Your task to perform on an android device: see sites visited before in the chrome app Image 0: 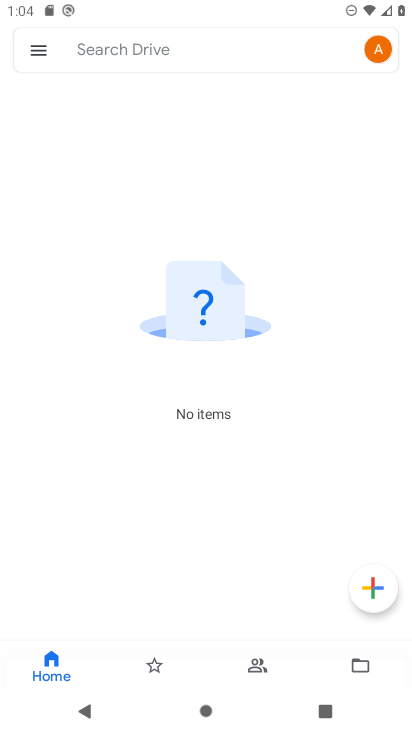
Step 0: press home button
Your task to perform on an android device: see sites visited before in the chrome app Image 1: 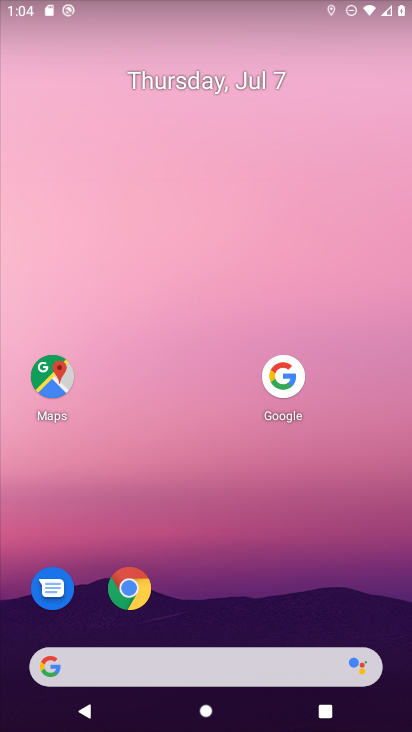
Step 1: click (133, 582)
Your task to perform on an android device: see sites visited before in the chrome app Image 2: 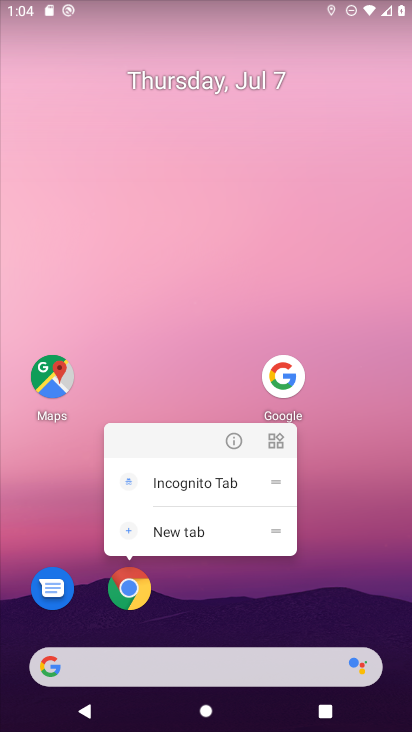
Step 2: click (134, 596)
Your task to perform on an android device: see sites visited before in the chrome app Image 3: 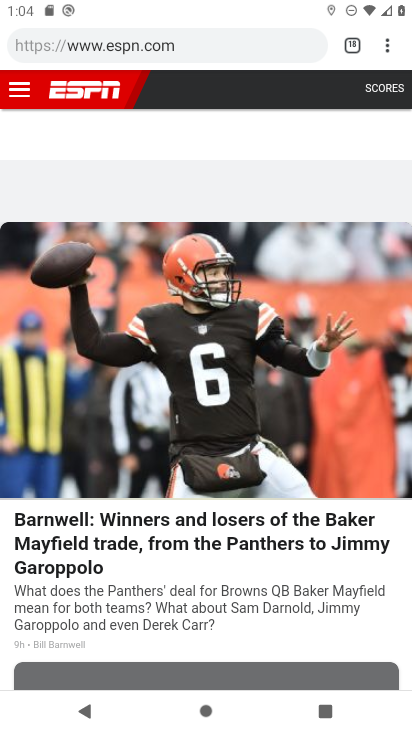
Step 3: task complete